Your task to perform on an android device: Open eBay Image 0: 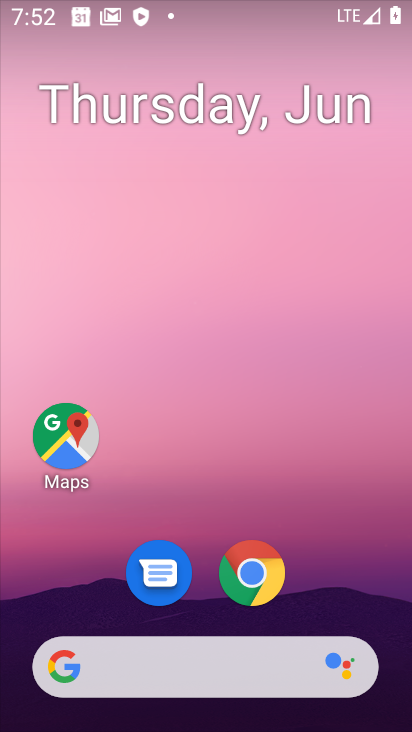
Step 0: click (248, 568)
Your task to perform on an android device: Open eBay Image 1: 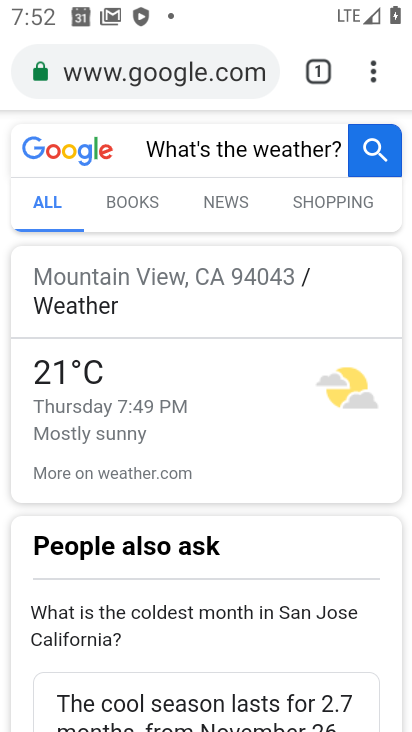
Step 1: click (376, 71)
Your task to perform on an android device: Open eBay Image 2: 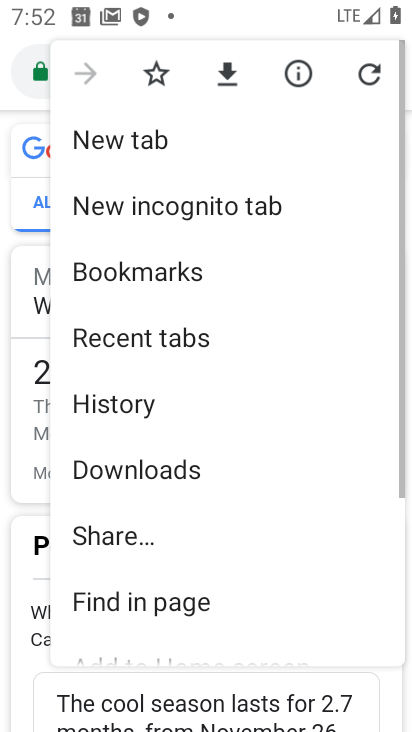
Step 2: click (174, 137)
Your task to perform on an android device: Open eBay Image 3: 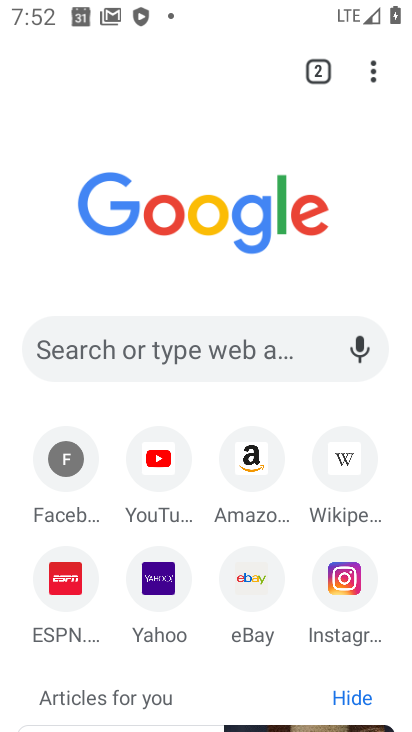
Step 3: click (251, 570)
Your task to perform on an android device: Open eBay Image 4: 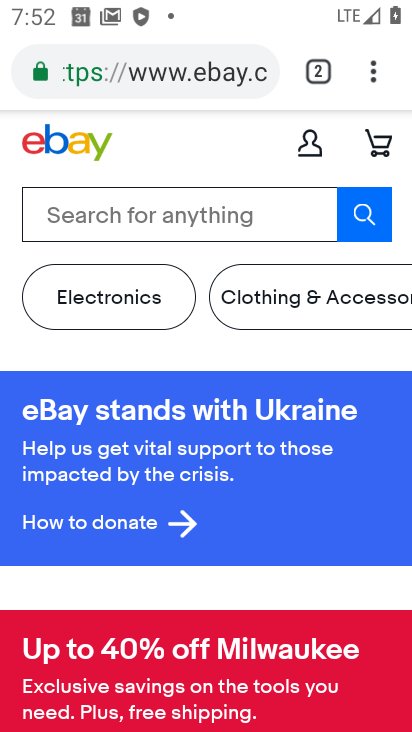
Step 4: task complete